Your task to perform on an android device: Open Google Chrome and click the shortcut for Amazon.com Image 0: 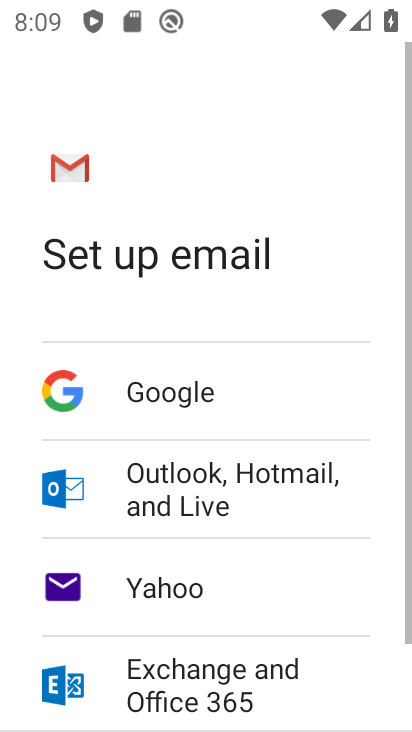
Step 0: press home button
Your task to perform on an android device: Open Google Chrome and click the shortcut for Amazon.com Image 1: 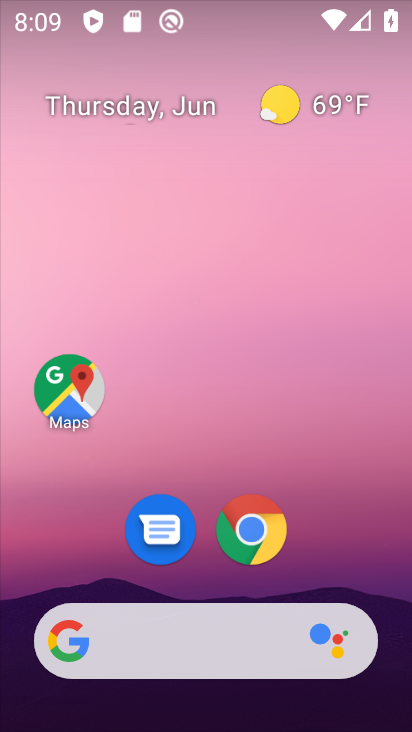
Step 1: click (252, 547)
Your task to perform on an android device: Open Google Chrome and click the shortcut for Amazon.com Image 2: 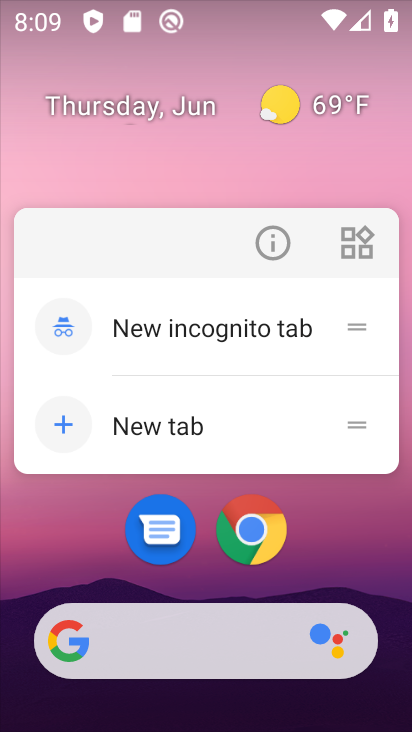
Step 2: click (252, 547)
Your task to perform on an android device: Open Google Chrome and click the shortcut for Amazon.com Image 3: 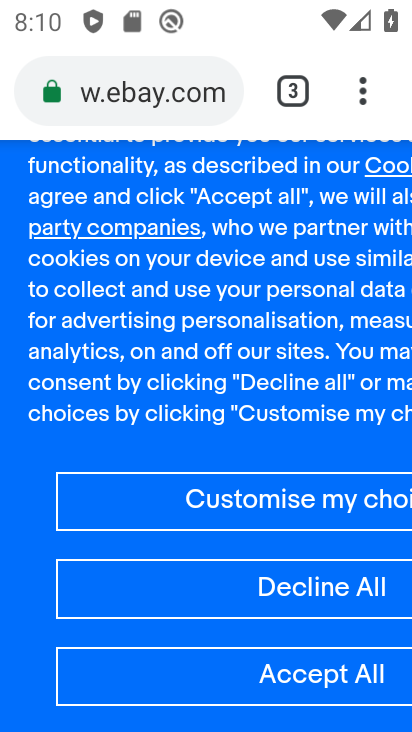
Step 3: click (283, 86)
Your task to perform on an android device: Open Google Chrome and click the shortcut for Amazon.com Image 4: 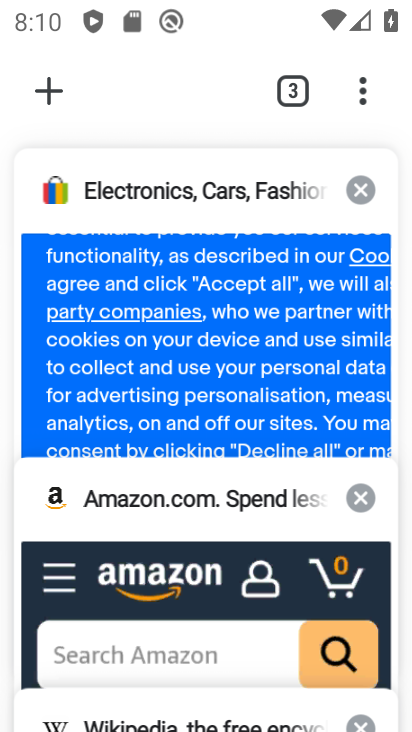
Step 4: click (264, 566)
Your task to perform on an android device: Open Google Chrome and click the shortcut for Amazon.com Image 5: 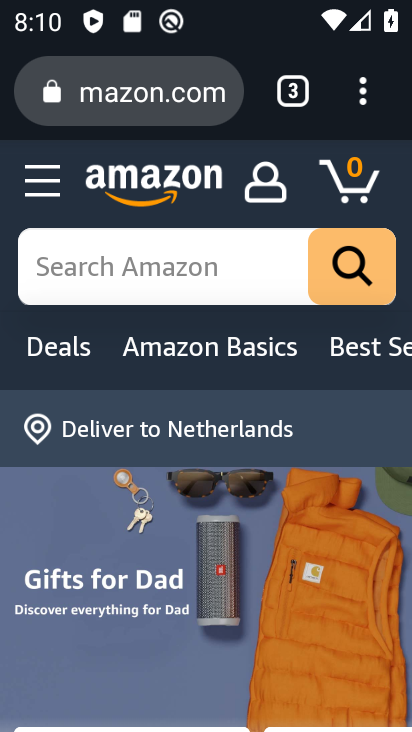
Step 5: task complete